Your task to perform on an android device: See recent photos Image 0: 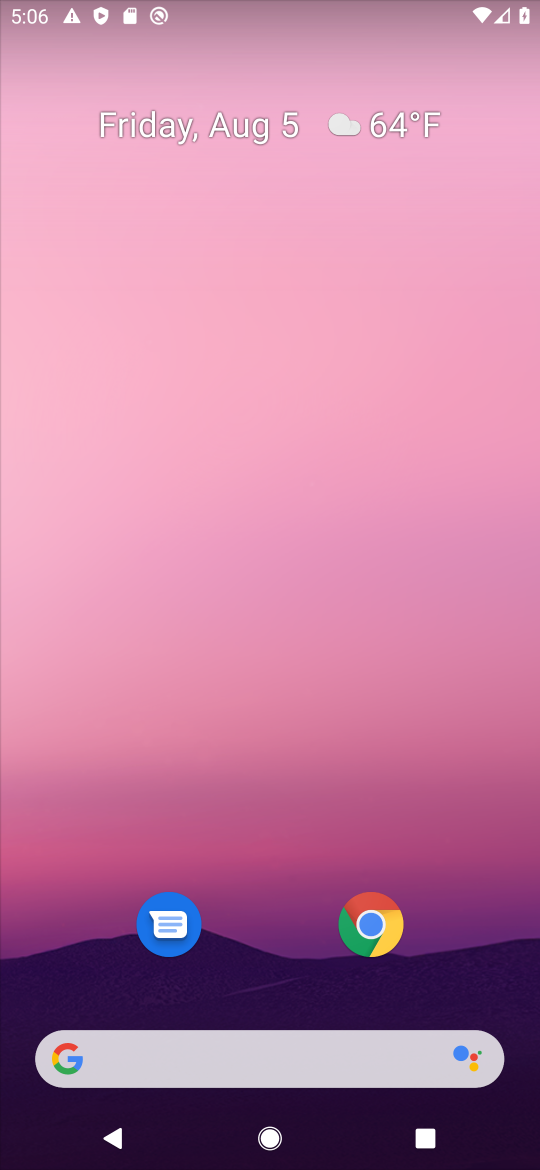
Step 0: drag from (179, 1069) to (179, 115)
Your task to perform on an android device: See recent photos Image 1: 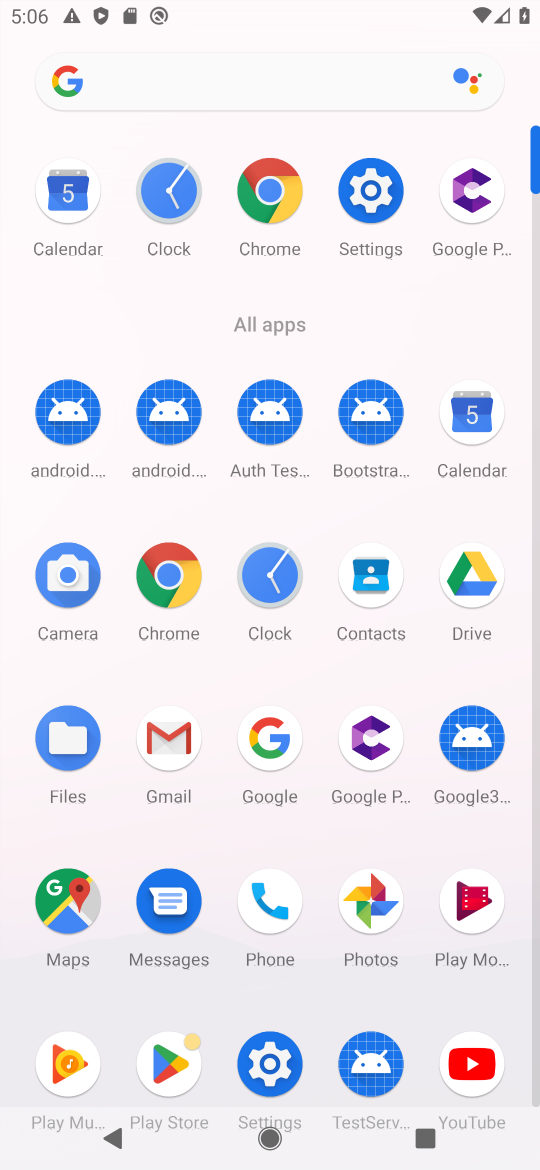
Step 1: click (346, 900)
Your task to perform on an android device: See recent photos Image 2: 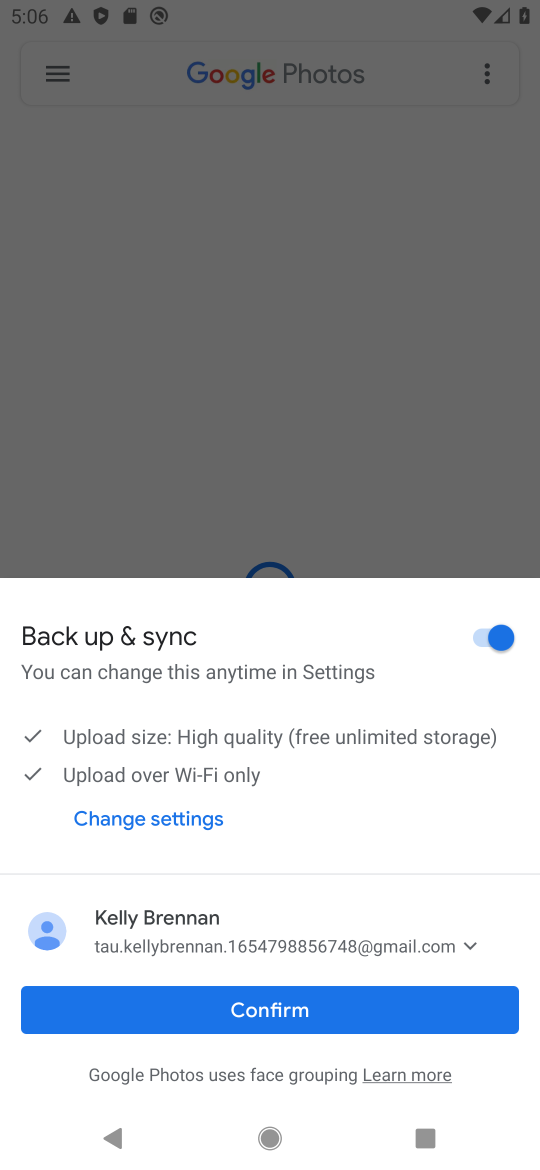
Step 2: click (304, 987)
Your task to perform on an android device: See recent photos Image 3: 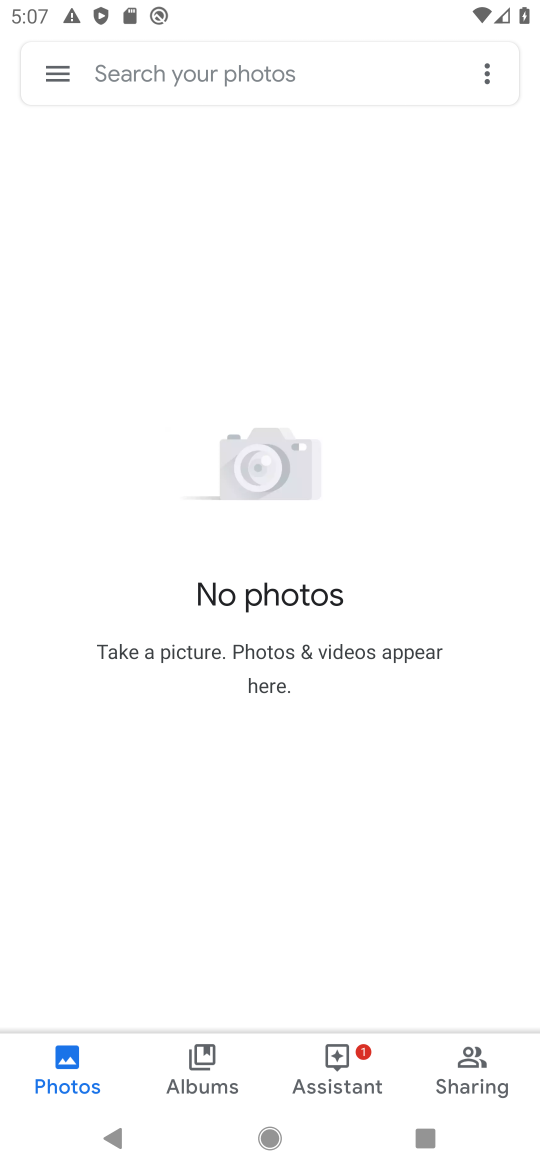
Step 3: task complete